Your task to perform on an android device: move a message to another label in the gmail app Image 0: 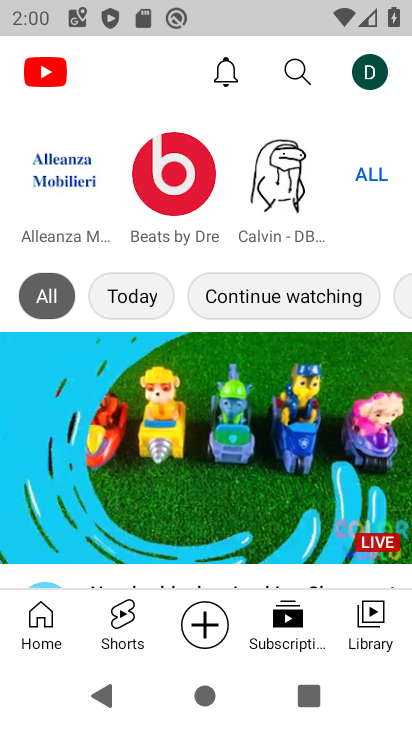
Step 0: drag from (74, 579) to (179, 105)
Your task to perform on an android device: move a message to another label in the gmail app Image 1: 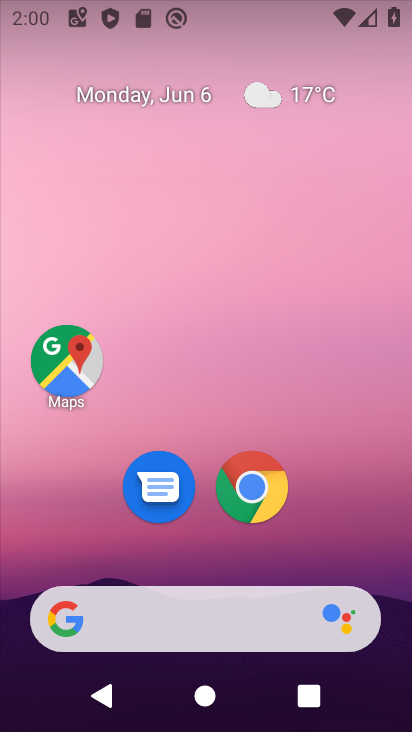
Step 1: click (340, 507)
Your task to perform on an android device: move a message to another label in the gmail app Image 2: 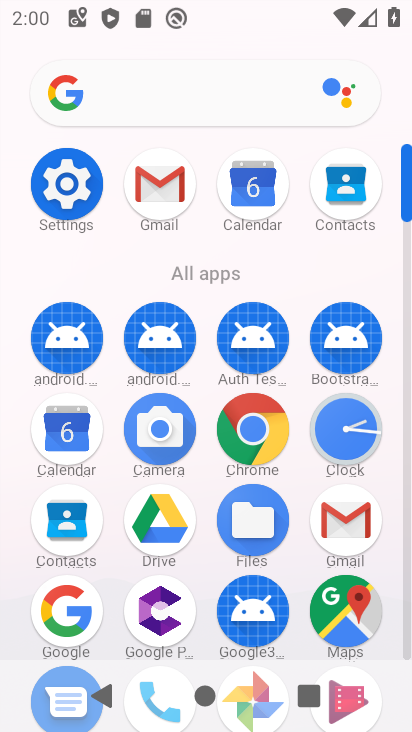
Step 2: click (39, 82)
Your task to perform on an android device: move a message to another label in the gmail app Image 3: 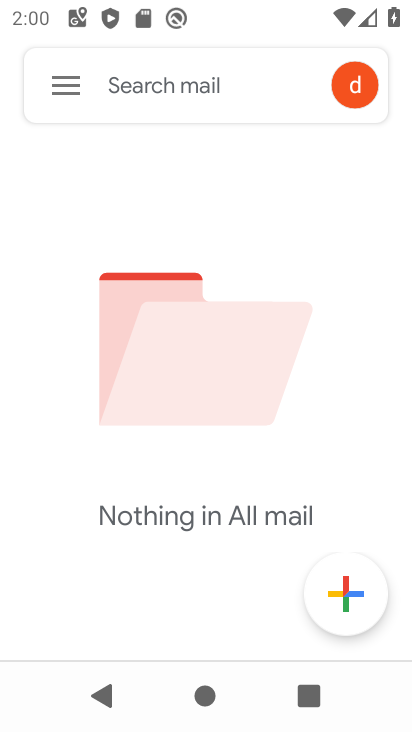
Step 3: click (336, 517)
Your task to perform on an android device: move a message to another label in the gmail app Image 4: 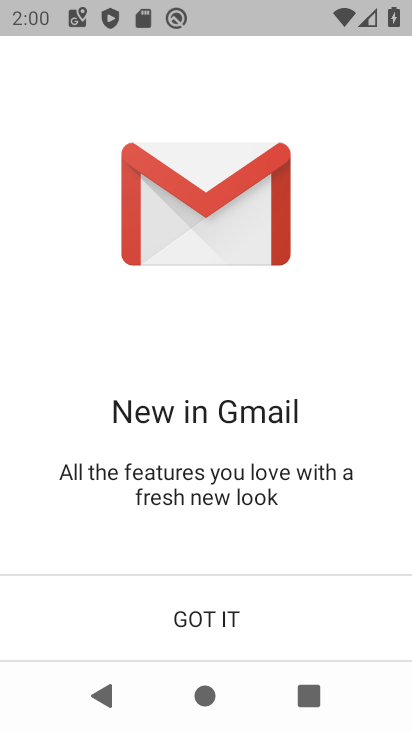
Step 4: click (303, 614)
Your task to perform on an android device: move a message to another label in the gmail app Image 5: 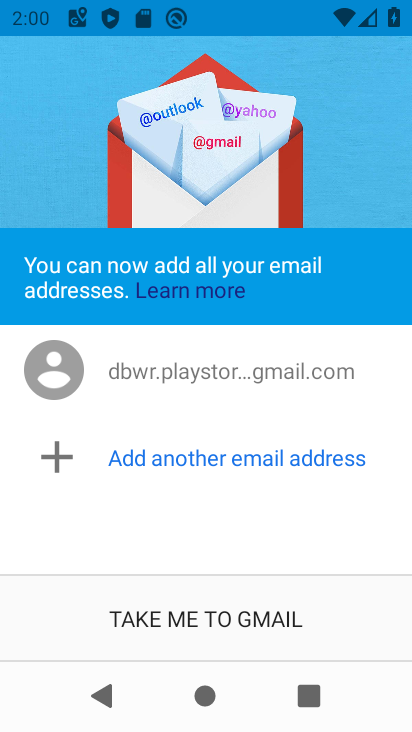
Step 5: click (303, 614)
Your task to perform on an android device: move a message to another label in the gmail app Image 6: 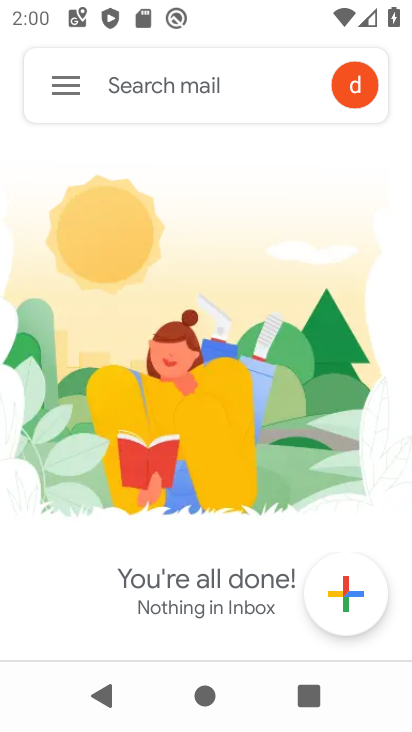
Step 6: click (55, 90)
Your task to perform on an android device: move a message to another label in the gmail app Image 7: 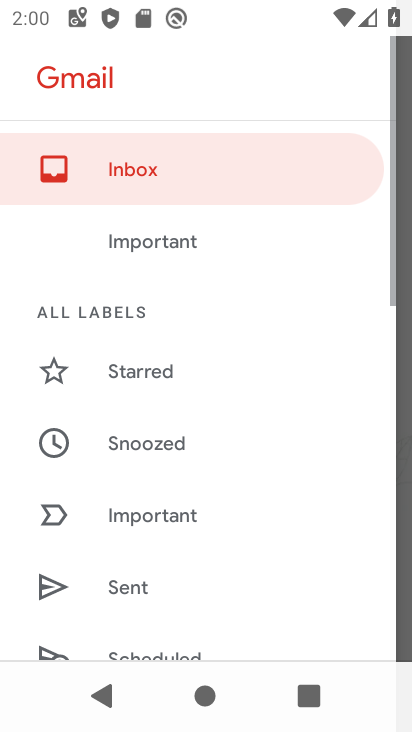
Step 7: drag from (123, 627) to (261, 110)
Your task to perform on an android device: move a message to another label in the gmail app Image 8: 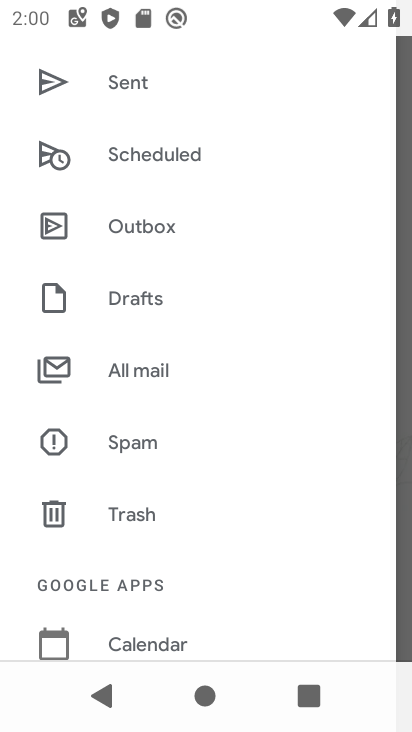
Step 8: click (187, 370)
Your task to perform on an android device: move a message to another label in the gmail app Image 9: 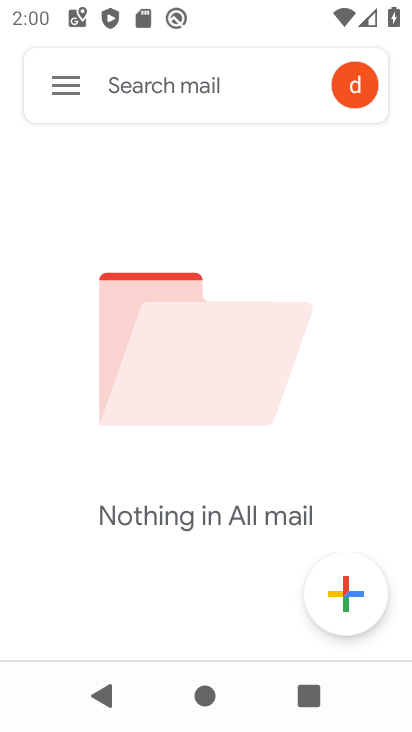
Step 9: task complete